Your task to perform on an android device: What's the weather today? Image 0: 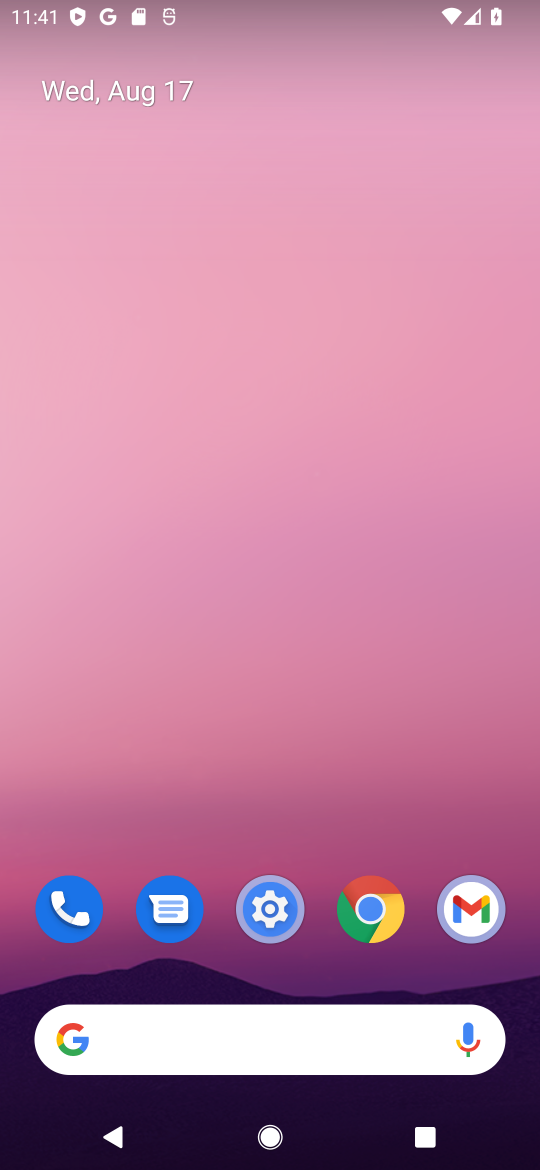
Step 0: click (77, 1036)
Your task to perform on an android device: What's the weather today? Image 1: 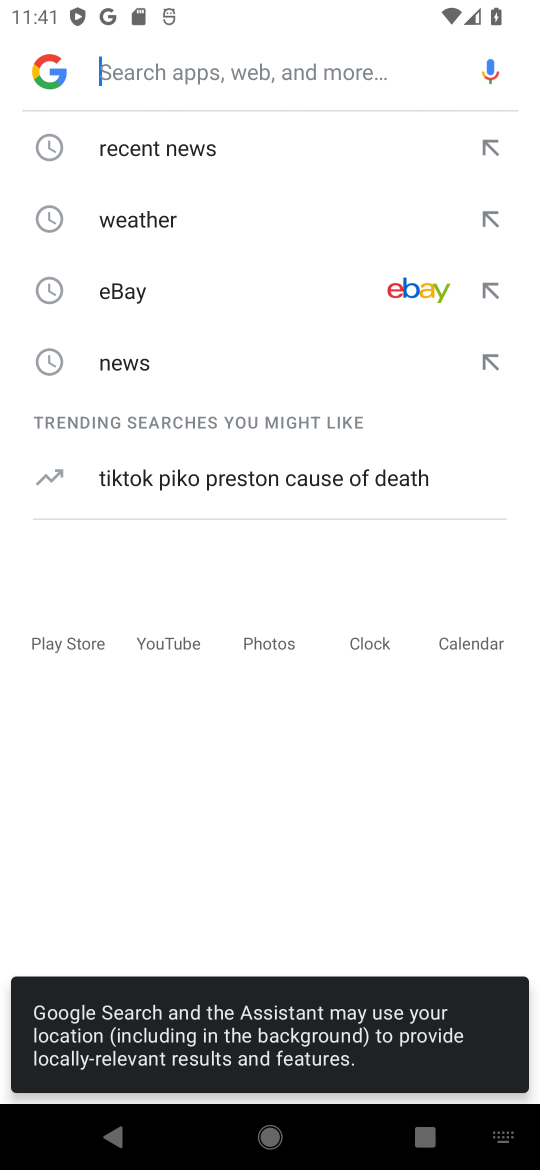
Step 1: click (124, 211)
Your task to perform on an android device: What's the weather today? Image 2: 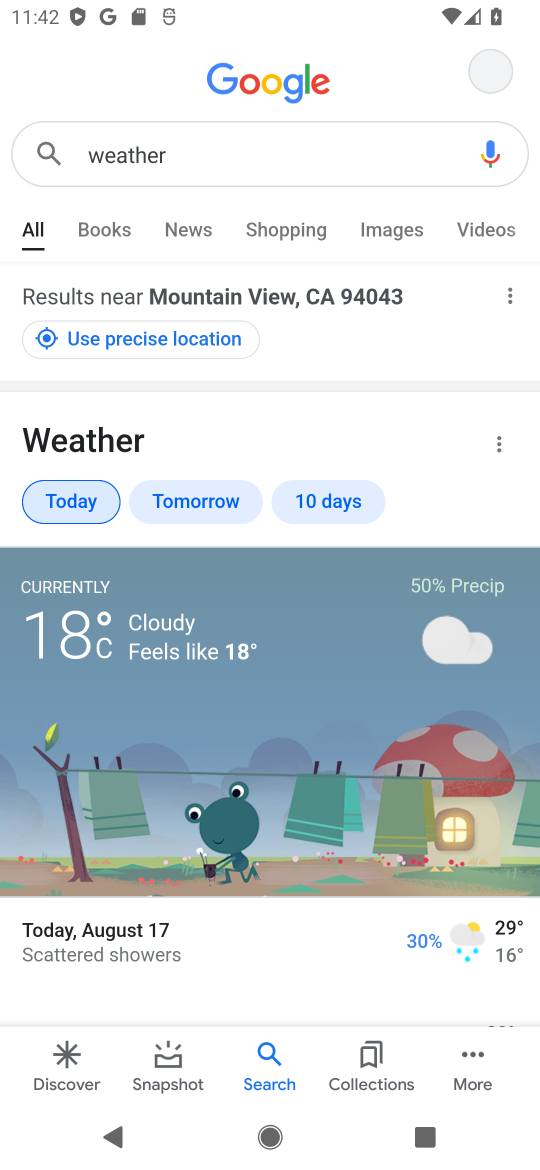
Step 2: task complete